Your task to perform on an android device: Search for vegetarian restaurants on Maps Image 0: 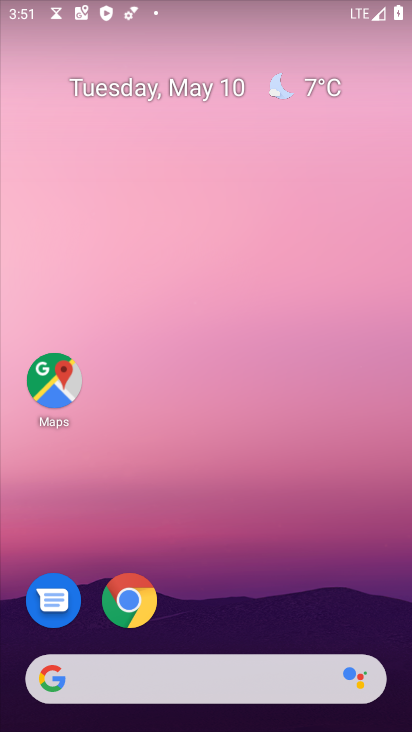
Step 0: click (62, 388)
Your task to perform on an android device: Search for vegetarian restaurants on Maps Image 1: 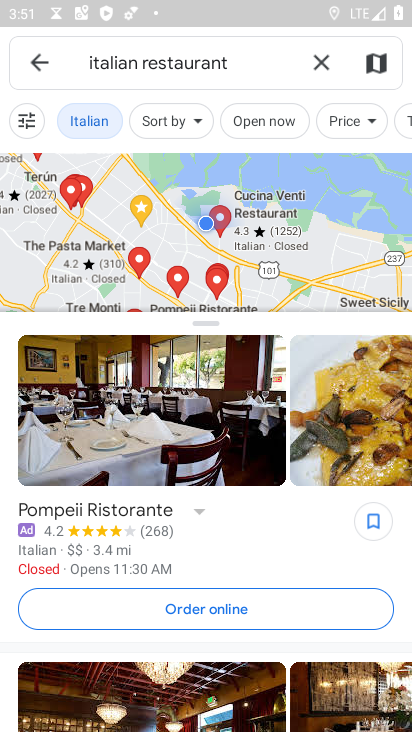
Step 1: click (139, 58)
Your task to perform on an android device: Search for vegetarian restaurants on Maps Image 2: 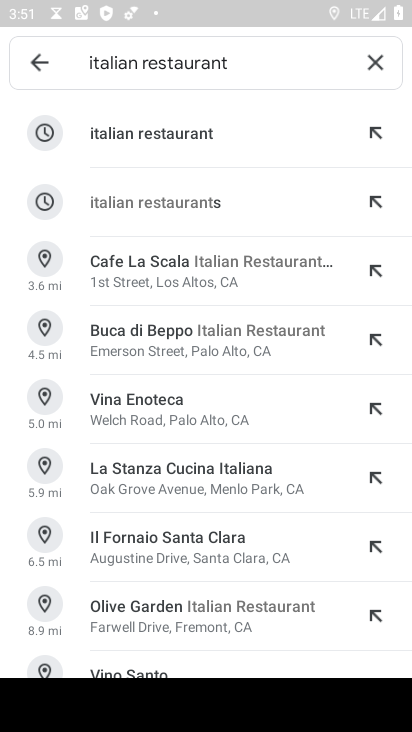
Step 2: click (135, 58)
Your task to perform on an android device: Search for vegetarian restaurants on Maps Image 3: 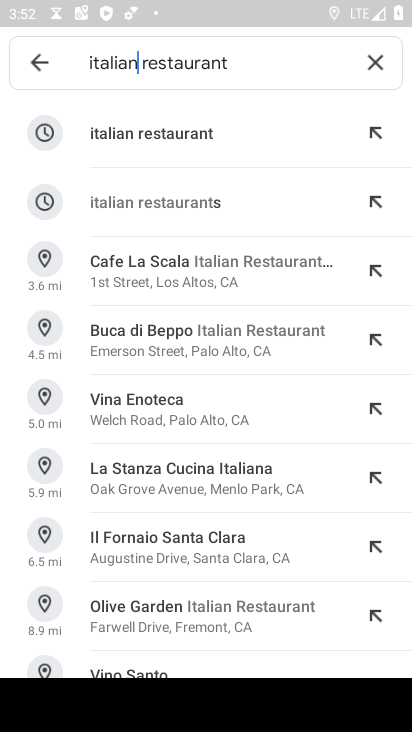
Step 3: click (366, 54)
Your task to perform on an android device: Search for vegetarian restaurants on Maps Image 4: 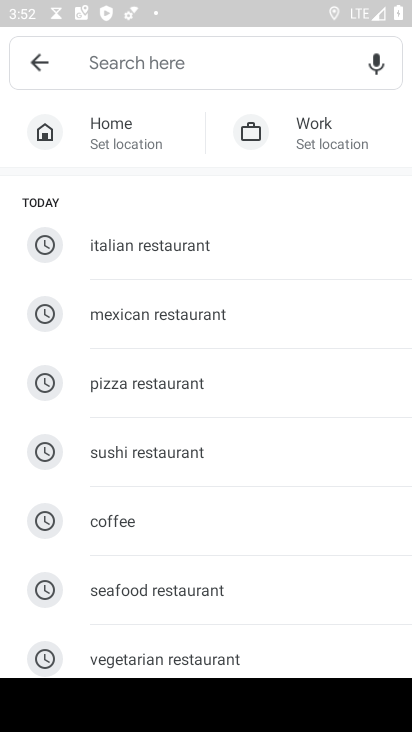
Step 4: type "vege"
Your task to perform on an android device: Search for vegetarian restaurants on Maps Image 5: 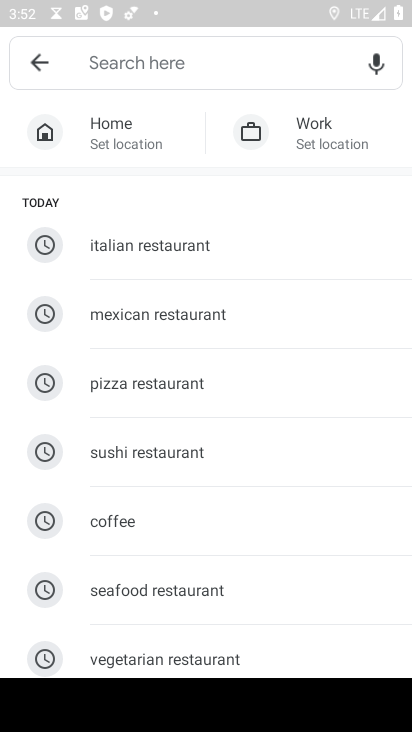
Step 5: click (193, 649)
Your task to perform on an android device: Search for vegetarian restaurants on Maps Image 6: 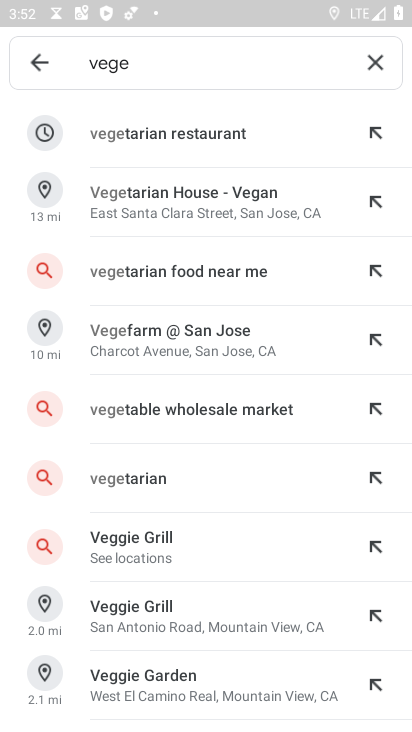
Step 6: click (218, 138)
Your task to perform on an android device: Search for vegetarian restaurants on Maps Image 7: 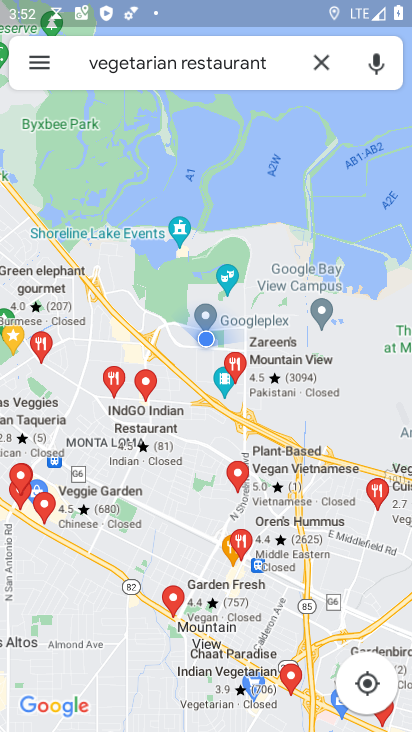
Step 7: task complete